Your task to perform on an android device: Go to display settings Image 0: 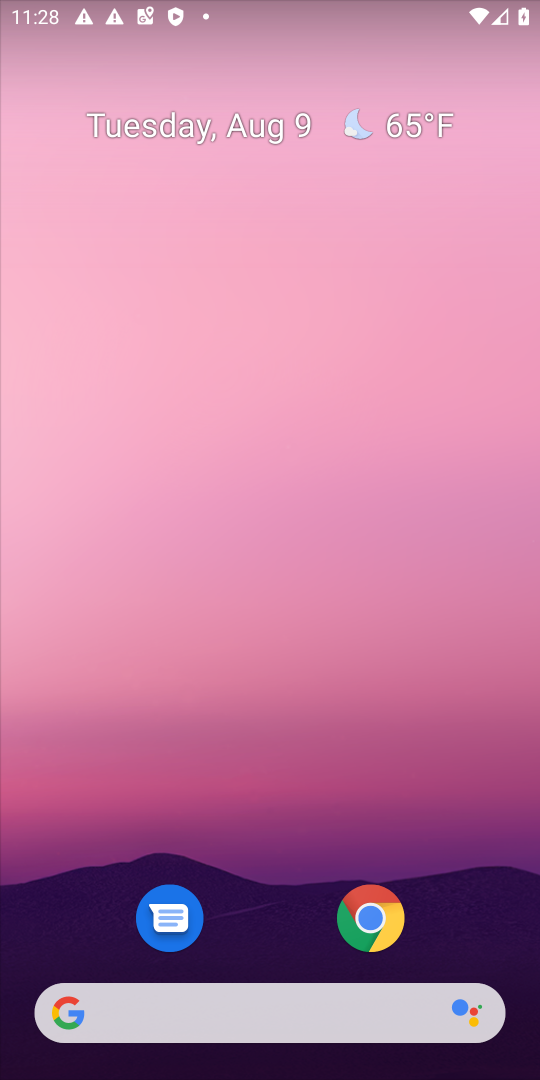
Step 0: drag from (233, 869) to (276, 175)
Your task to perform on an android device: Go to display settings Image 1: 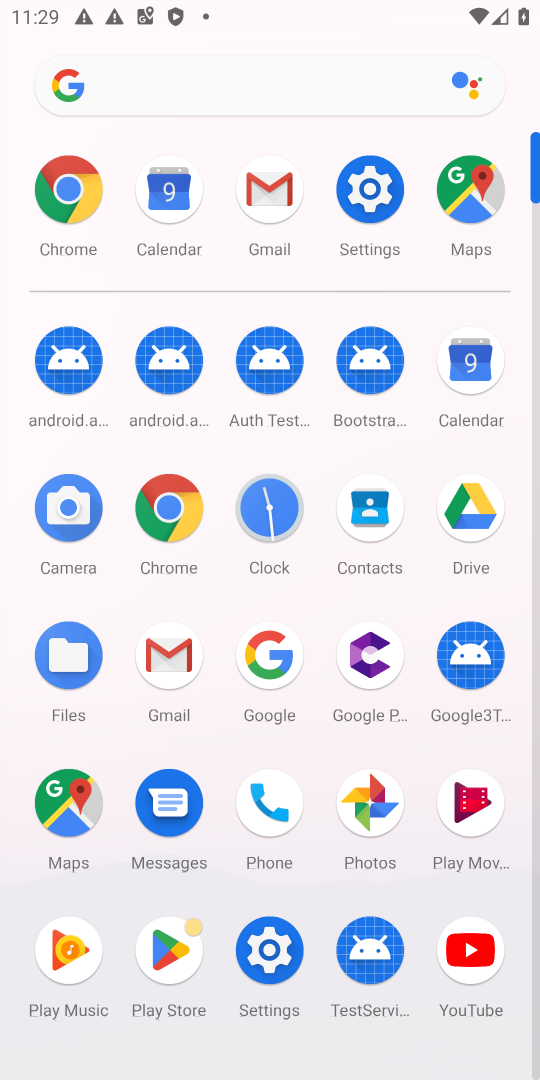
Step 1: click (268, 964)
Your task to perform on an android device: Go to display settings Image 2: 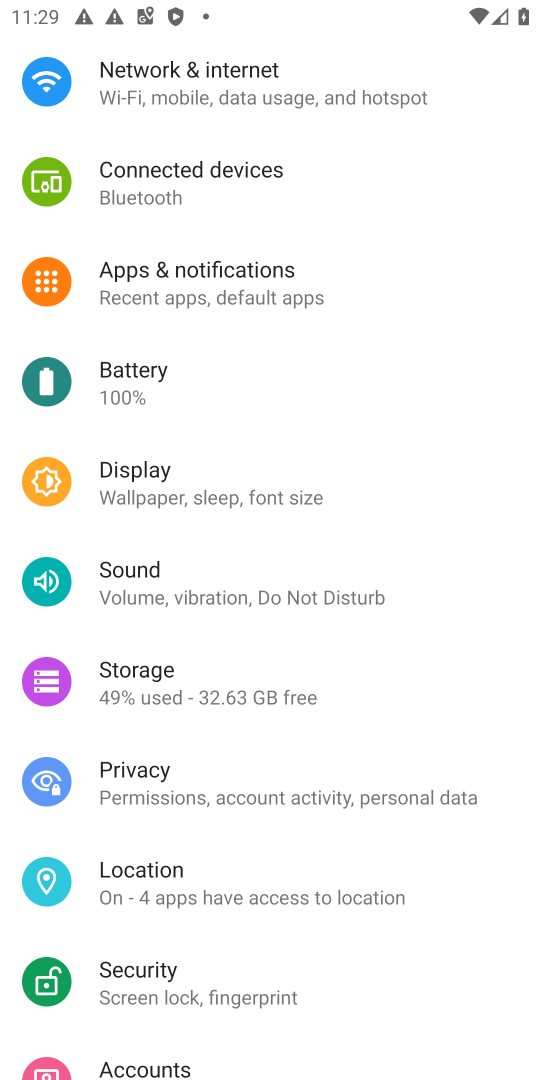
Step 2: click (160, 471)
Your task to perform on an android device: Go to display settings Image 3: 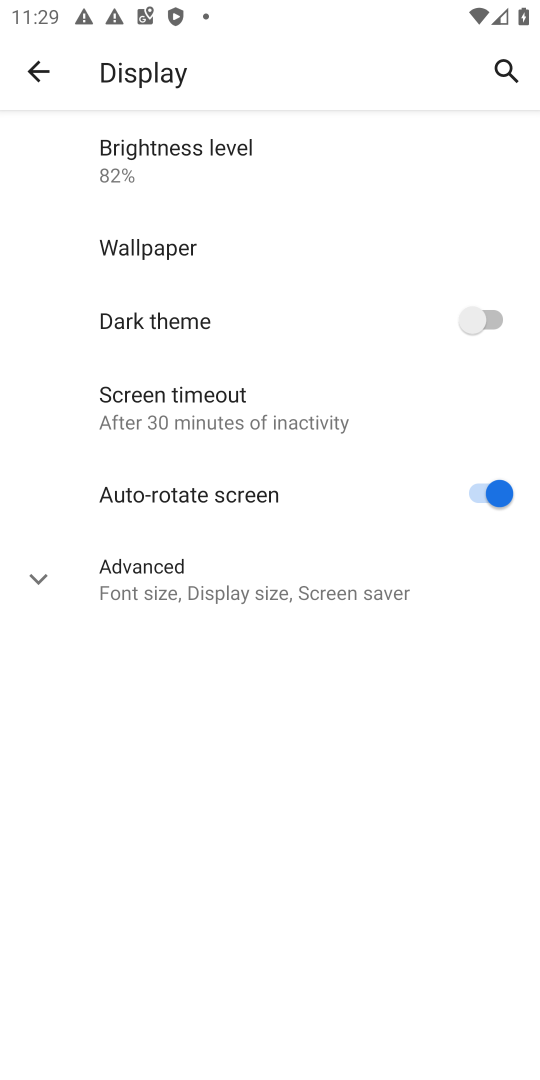
Step 3: task complete